Your task to perform on an android device: delete a single message in the gmail app Image 0: 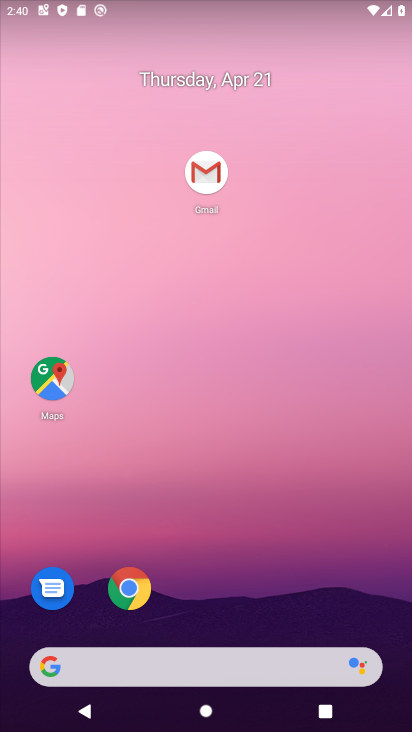
Step 0: click (327, 44)
Your task to perform on an android device: delete a single message in the gmail app Image 1: 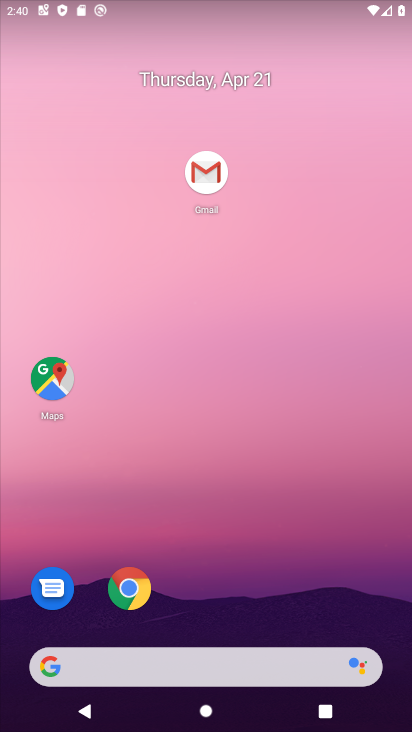
Step 1: drag from (264, 500) to (284, 78)
Your task to perform on an android device: delete a single message in the gmail app Image 2: 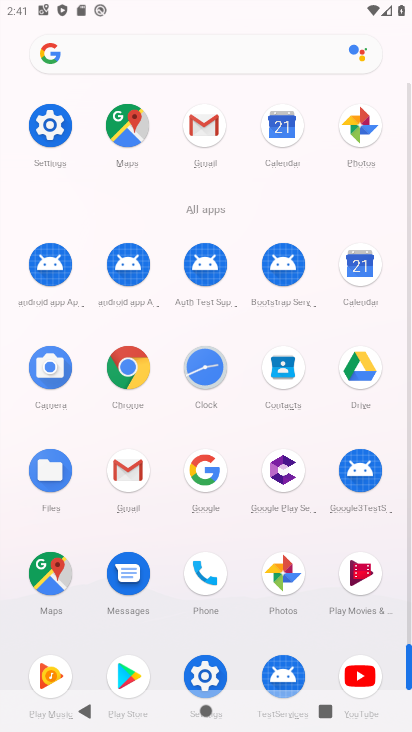
Step 2: click (128, 470)
Your task to perform on an android device: delete a single message in the gmail app Image 3: 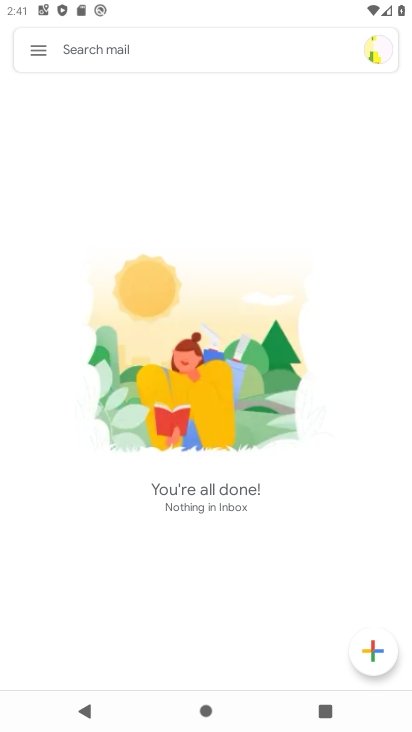
Step 3: task complete